Your task to perform on an android device: Open the stopwatch Image 0: 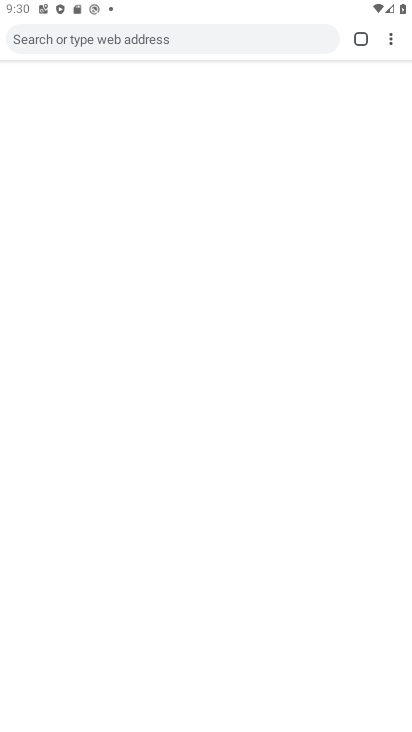
Step 0: drag from (291, 619) to (288, 546)
Your task to perform on an android device: Open the stopwatch Image 1: 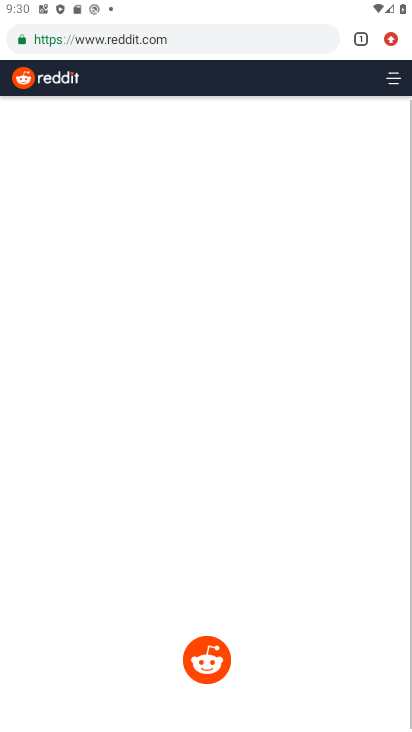
Step 1: press home button
Your task to perform on an android device: Open the stopwatch Image 2: 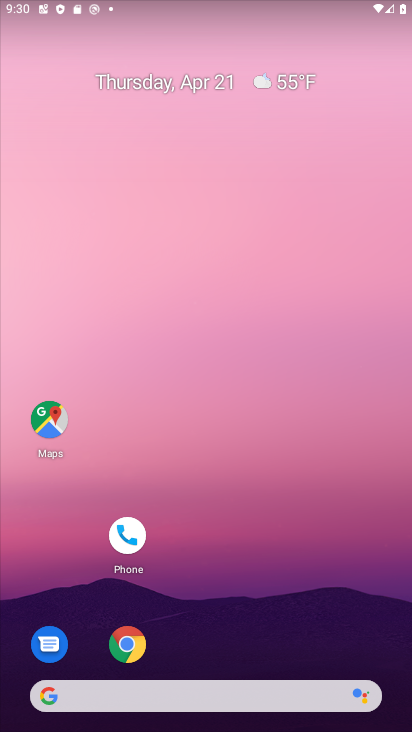
Step 2: drag from (248, 618) to (231, 189)
Your task to perform on an android device: Open the stopwatch Image 3: 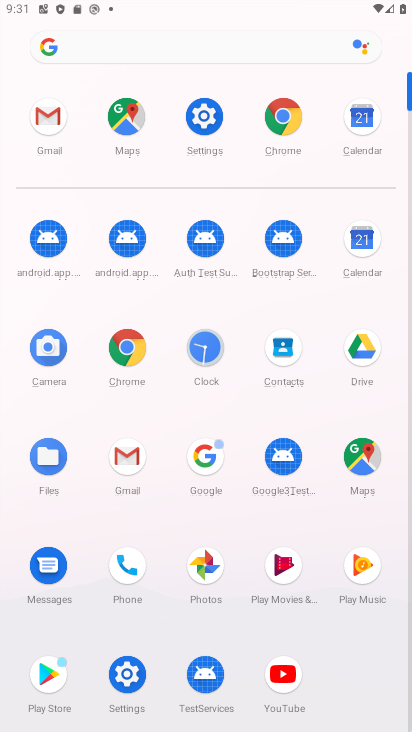
Step 3: click (206, 353)
Your task to perform on an android device: Open the stopwatch Image 4: 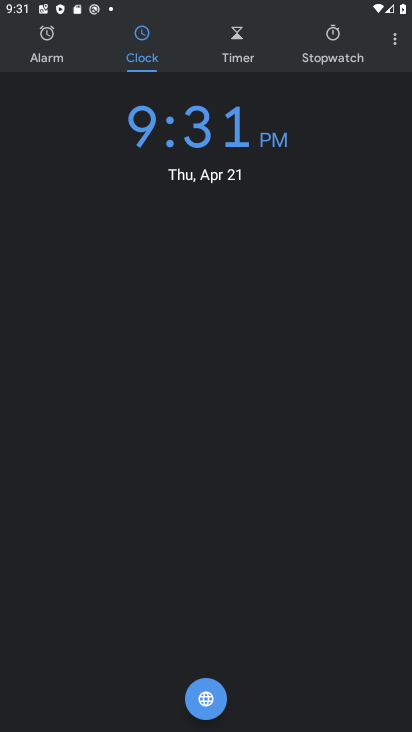
Step 4: click (347, 49)
Your task to perform on an android device: Open the stopwatch Image 5: 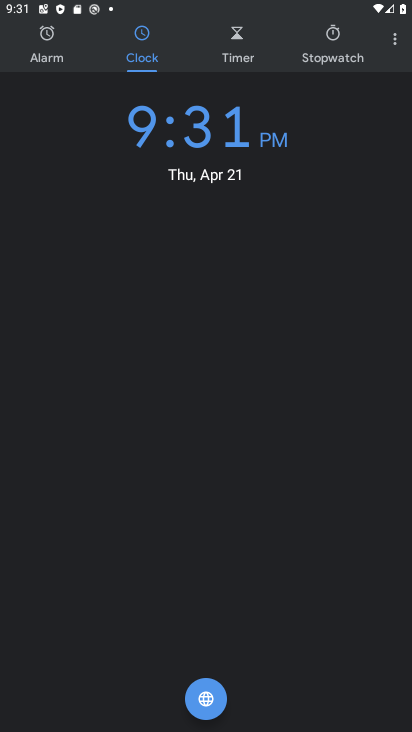
Step 5: task complete